Your task to perform on an android device: When is my next appointment? Image 0: 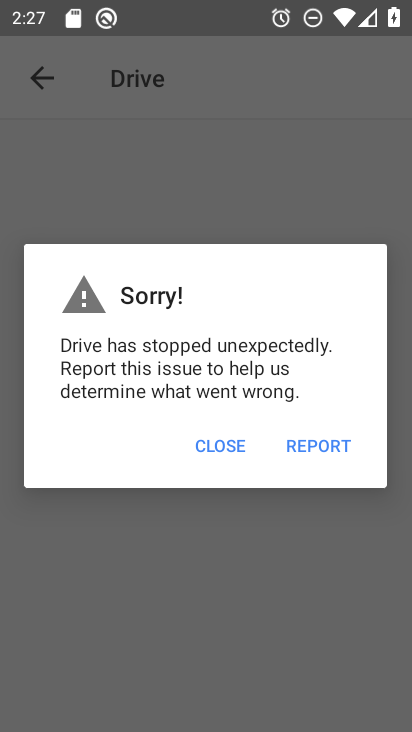
Step 0: press home button
Your task to perform on an android device: When is my next appointment? Image 1: 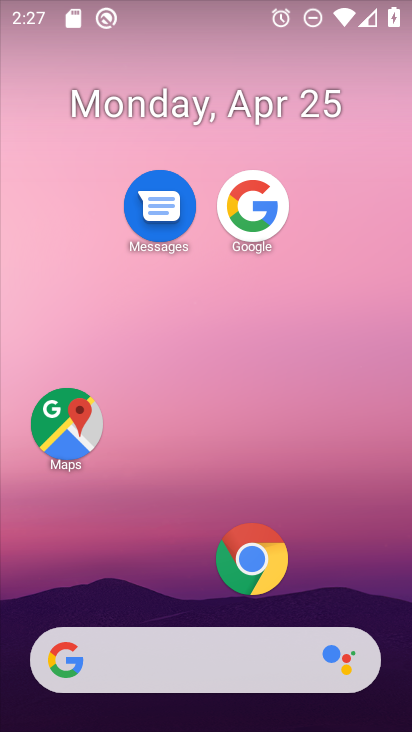
Step 1: drag from (176, 486) to (203, 113)
Your task to perform on an android device: When is my next appointment? Image 2: 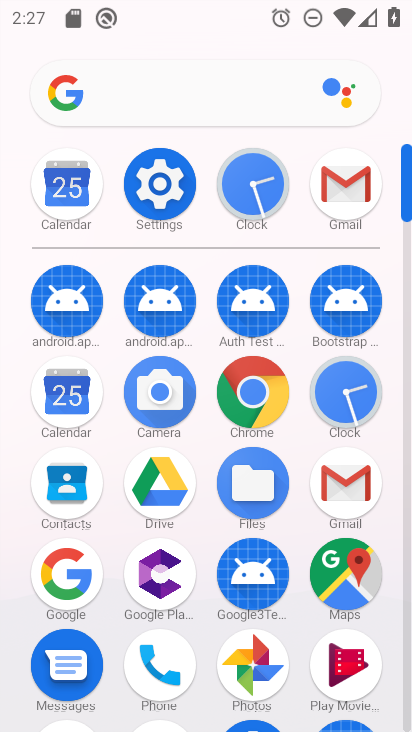
Step 2: drag from (208, 622) to (231, 195)
Your task to perform on an android device: When is my next appointment? Image 3: 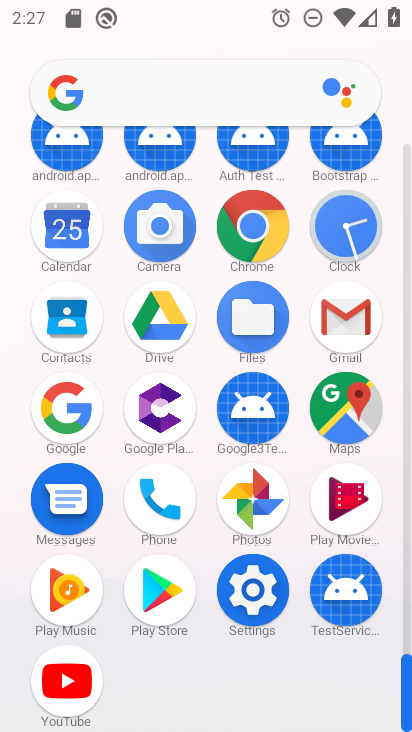
Step 3: drag from (199, 361) to (211, 422)
Your task to perform on an android device: When is my next appointment? Image 4: 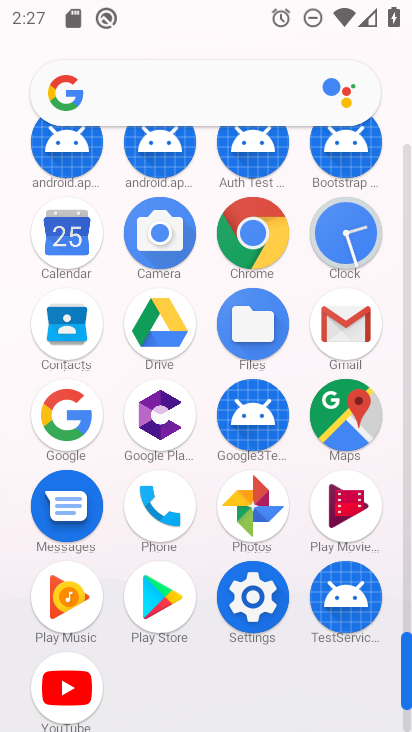
Step 4: click (76, 233)
Your task to perform on an android device: When is my next appointment? Image 5: 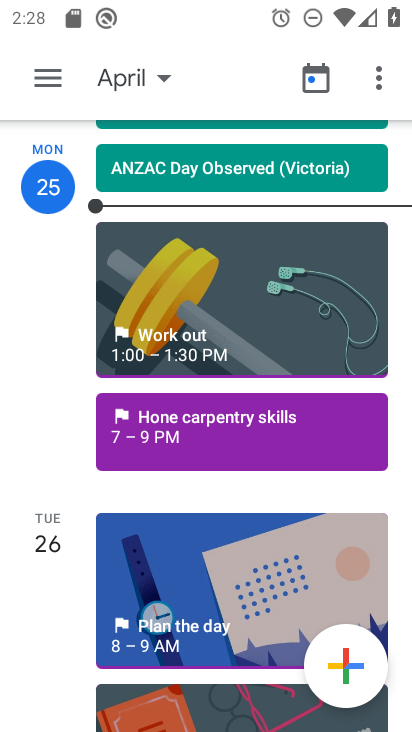
Step 5: click (162, 77)
Your task to perform on an android device: When is my next appointment? Image 6: 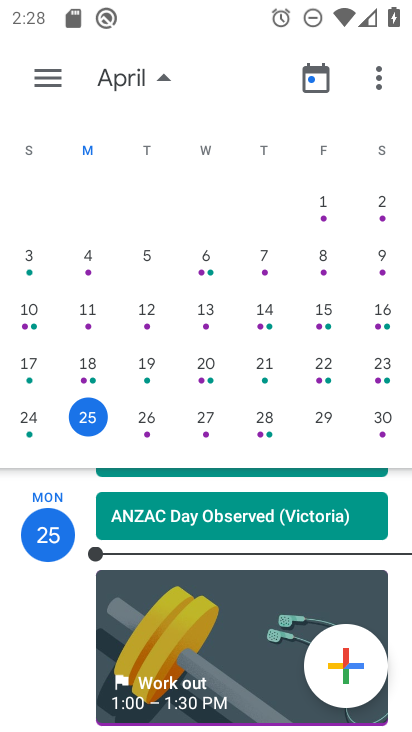
Step 6: drag from (360, 442) to (168, 477)
Your task to perform on an android device: When is my next appointment? Image 7: 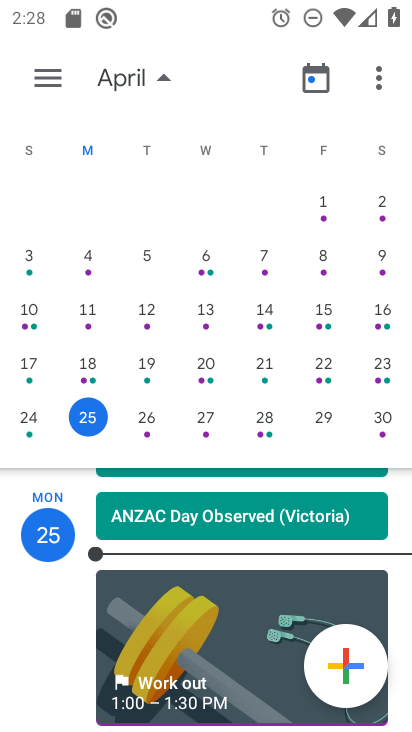
Step 7: click (200, 416)
Your task to perform on an android device: When is my next appointment? Image 8: 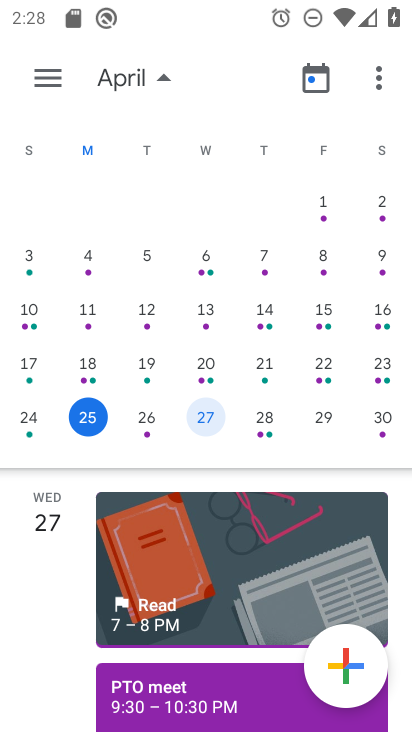
Step 8: task complete